Your task to perform on an android device: Is it going to rain today? Image 0: 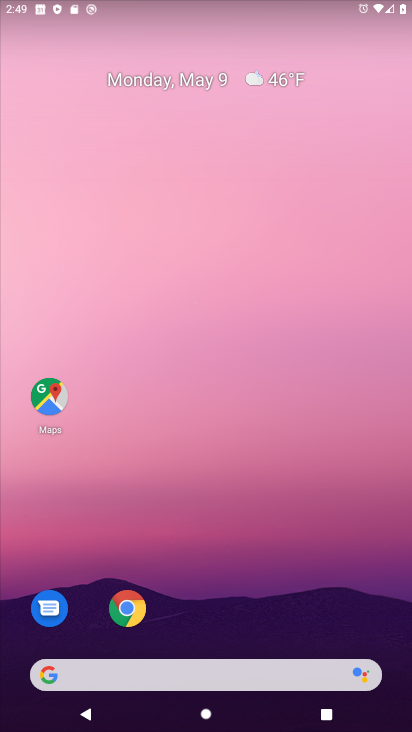
Step 0: click (124, 608)
Your task to perform on an android device: Is it going to rain today? Image 1: 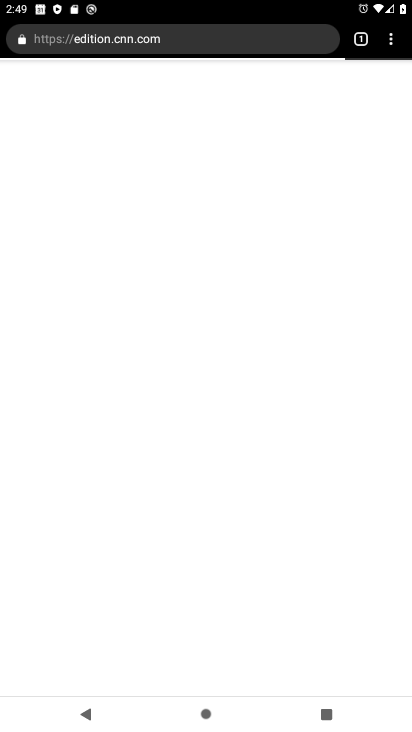
Step 1: drag from (198, 679) to (152, 696)
Your task to perform on an android device: Is it going to rain today? Image 2: 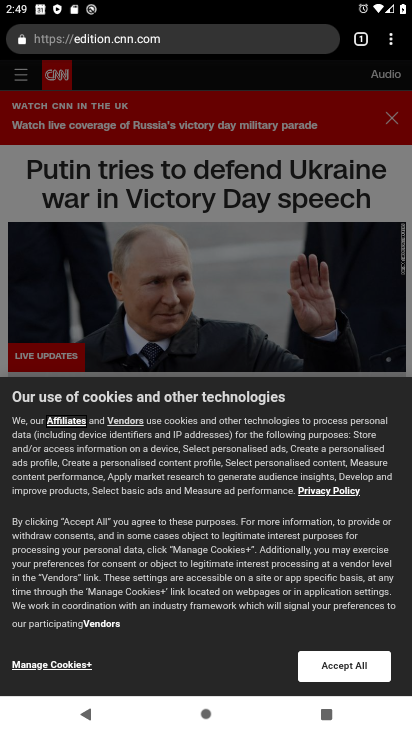
Step 2: click (129, 44)
Your task to perform on an android device: Is it going to rain today? Image 3: 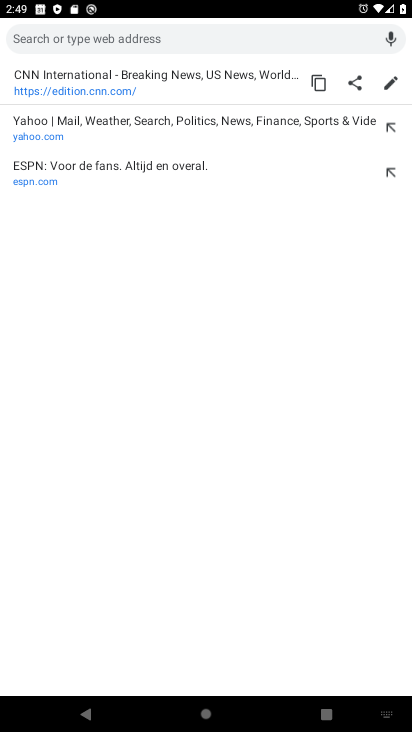
Step 3: type " Is it going to rain today?"
Your task to perform on an android device: Is it going to rain today? Image 4: 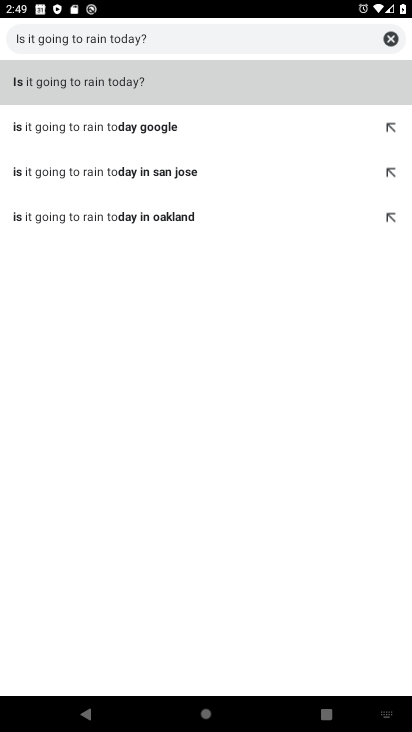
Step 4: click (142, 87)
Your task to perform on an android device: Is it going to rain today? Image 5: 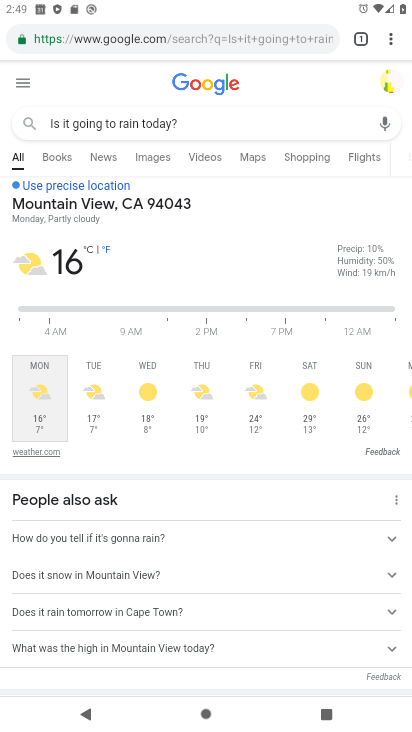
Step 5: task complete